Your task to perform on an android device: Clear all items from cart on ebay. Image 0: 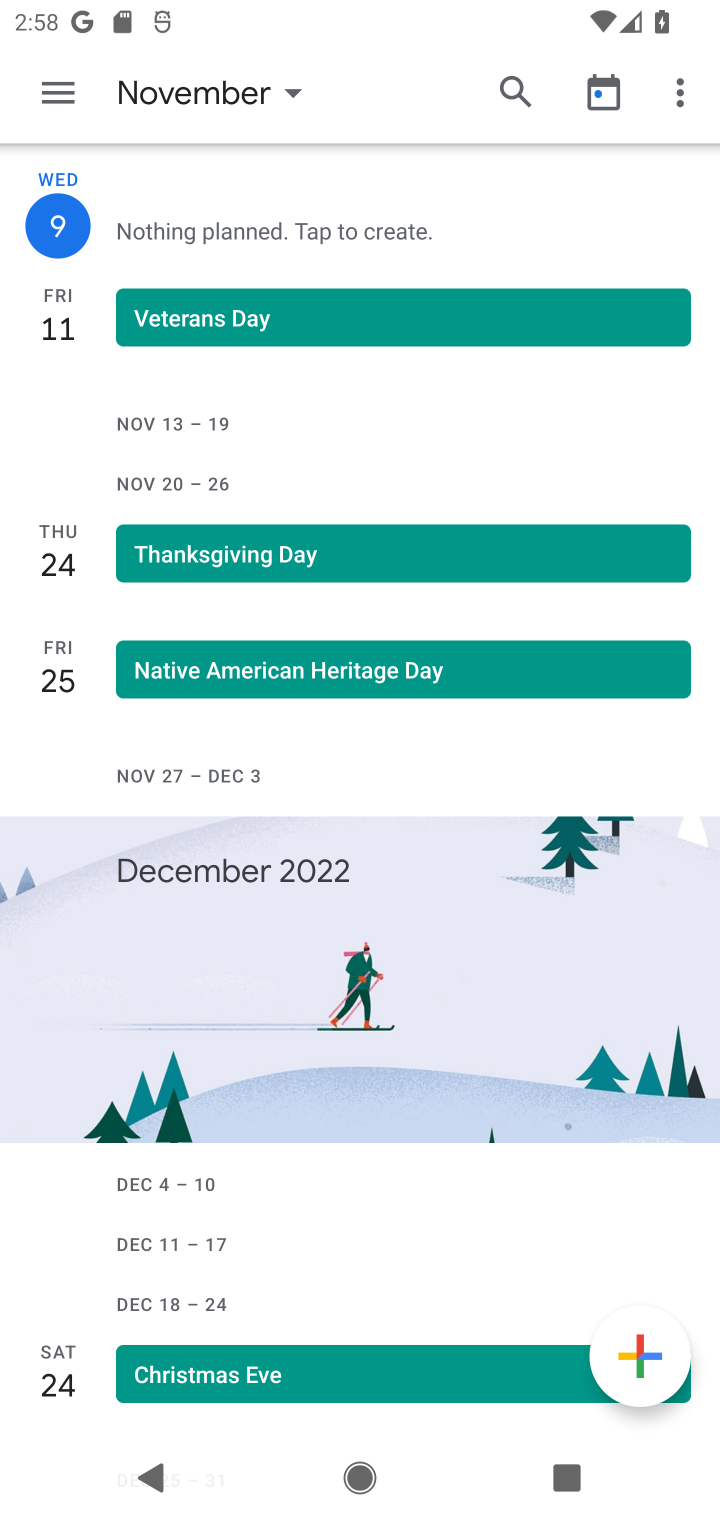
Step 0: press home button
Your task to perform on an android device: Clear all items from cart on ebay. Image 1: 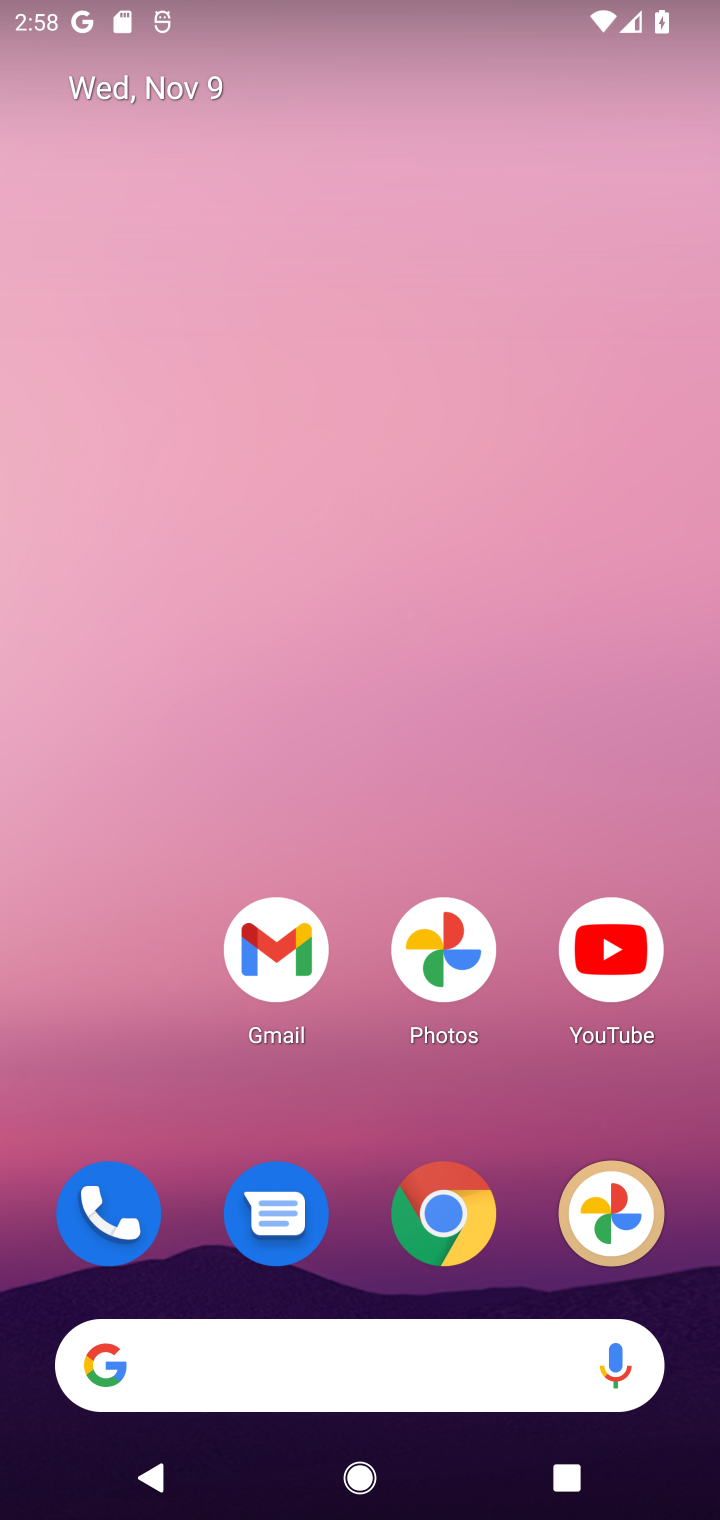
Step 1: click (441, 1215)
Your task to perform on an android device: Clear all items from cart on ebay. Image 2: 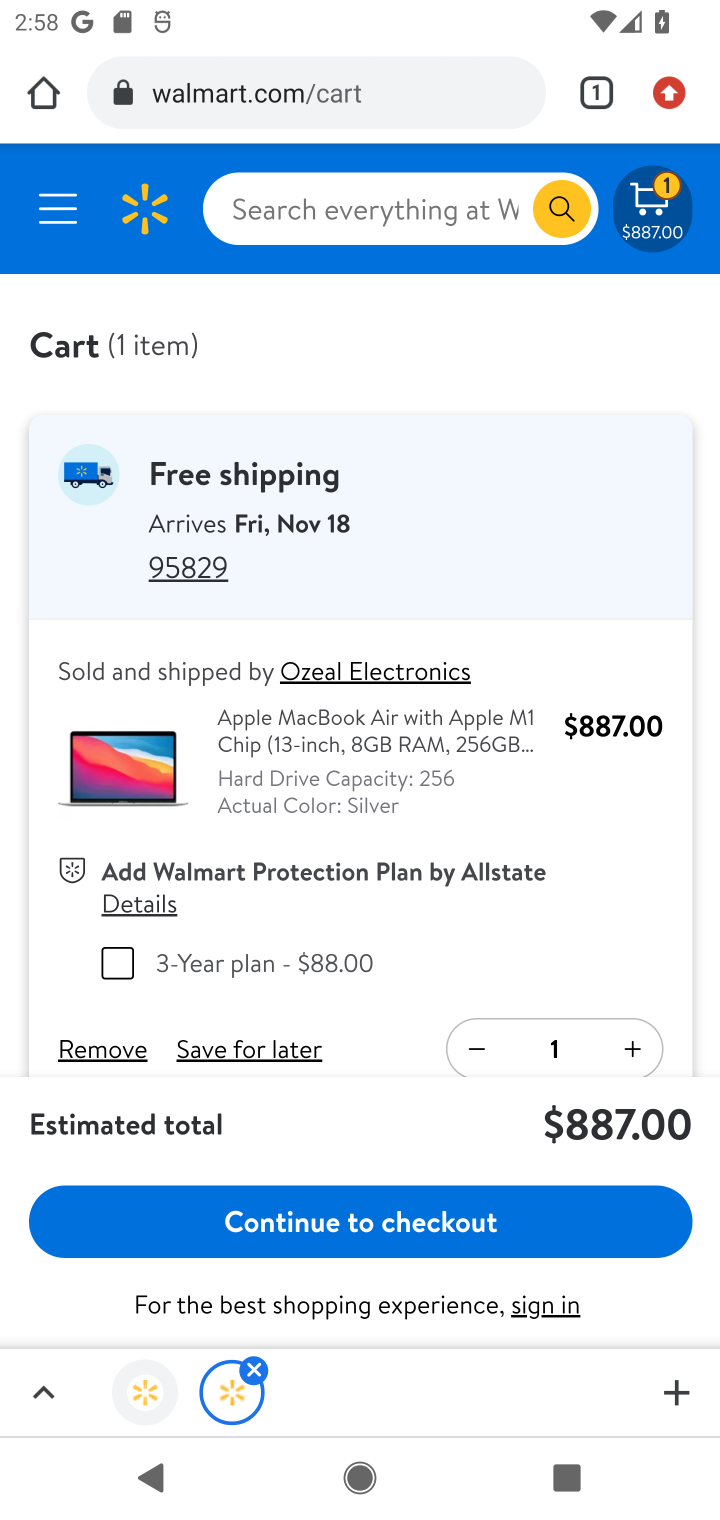
Step 2: click (398, 108)
Your task to perform on an android device: Clear all items from cart on ebay. Image 3: 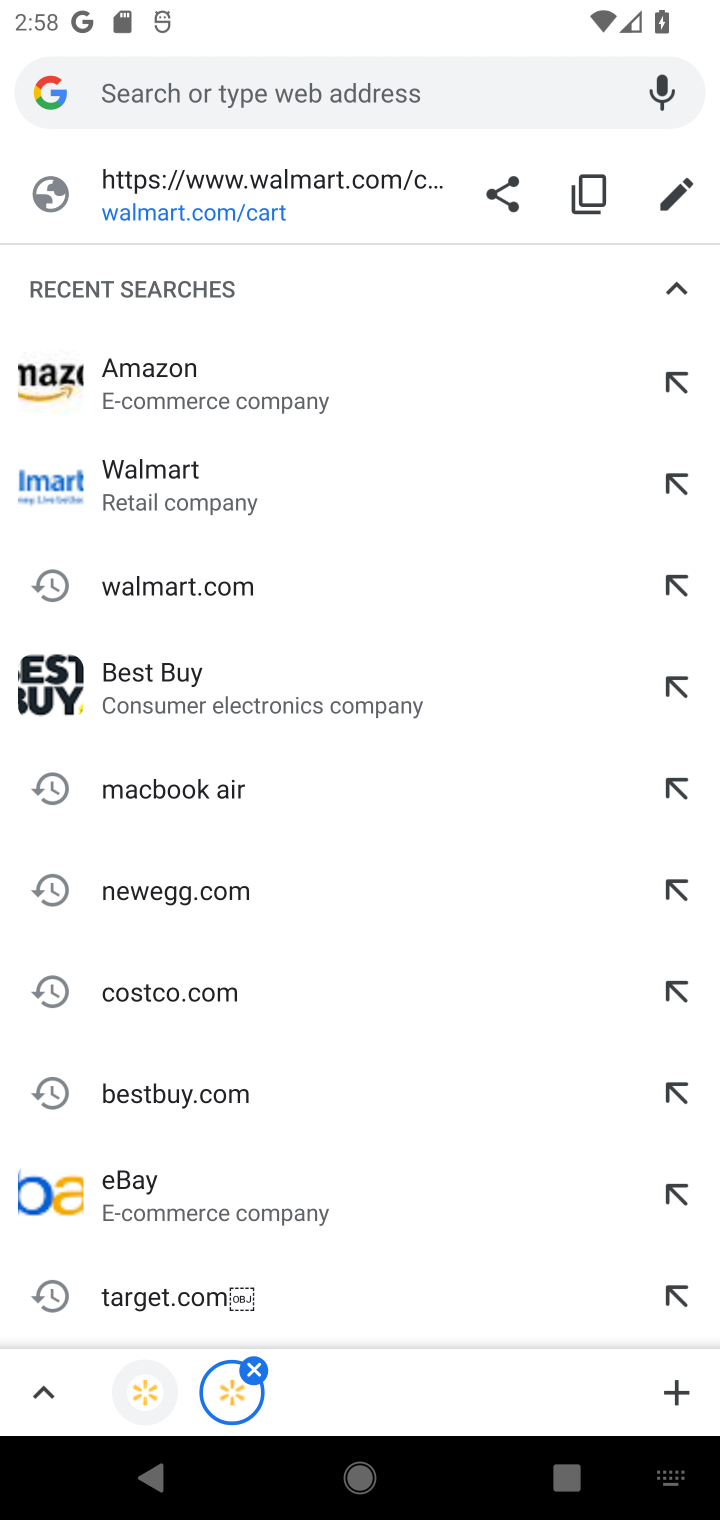
Step 3: type "ebay"
Your task to perform on an android device: Clear all items from cart on ebay. Image 4: 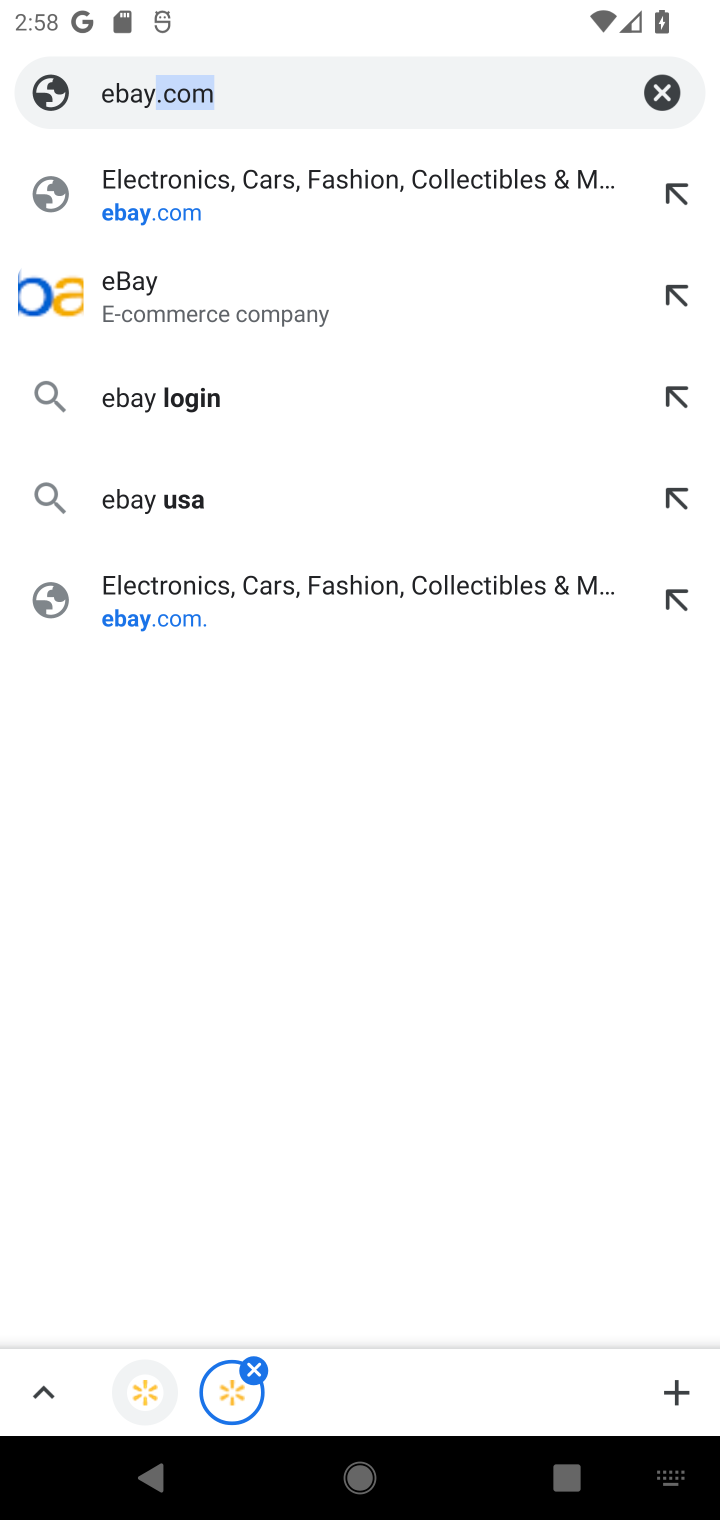
Step 4: click (230, 318)
Your task to perform on an android device: Clear all items from cart on ebay. Image 5: 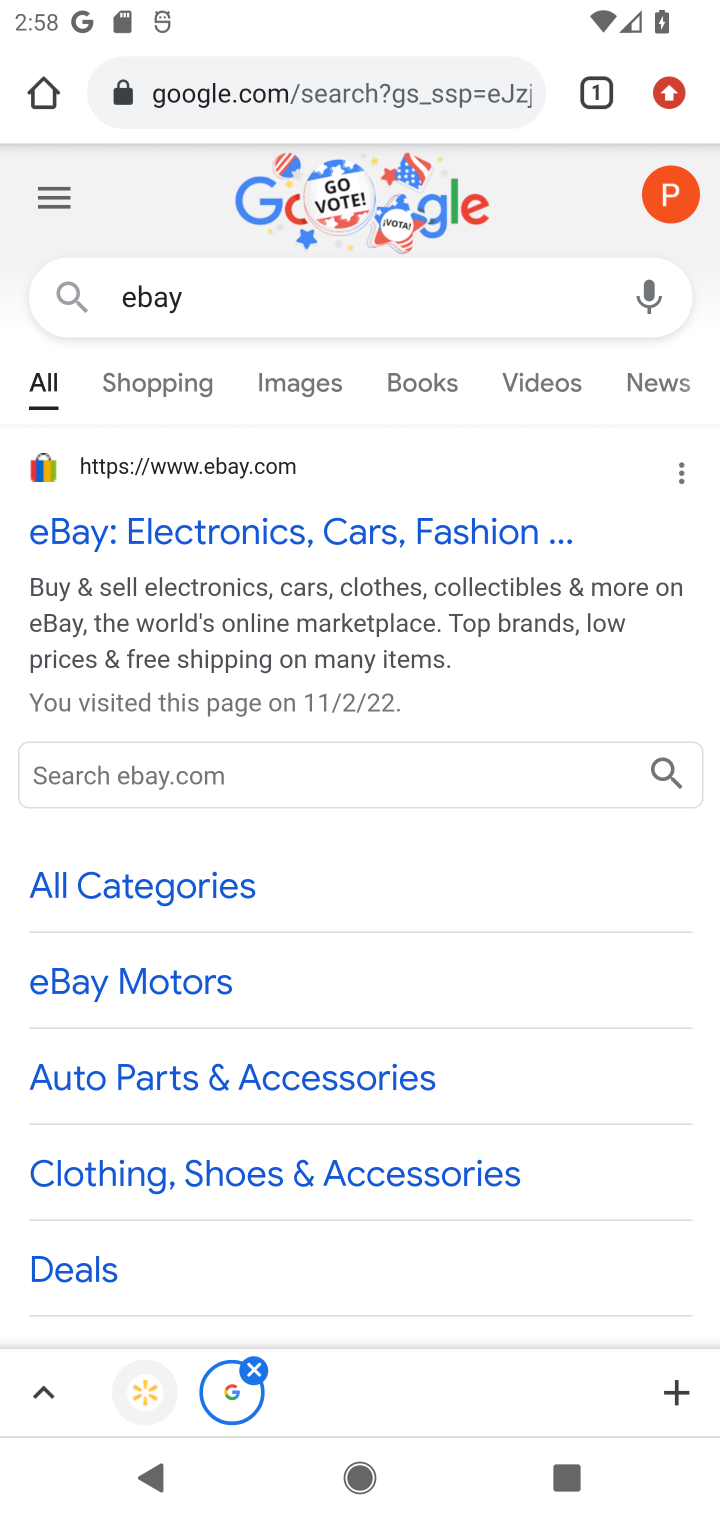
Step 5: click (284, 550)
Your task to perform on an android device: Clear all items from cart on ebay. Image 6: 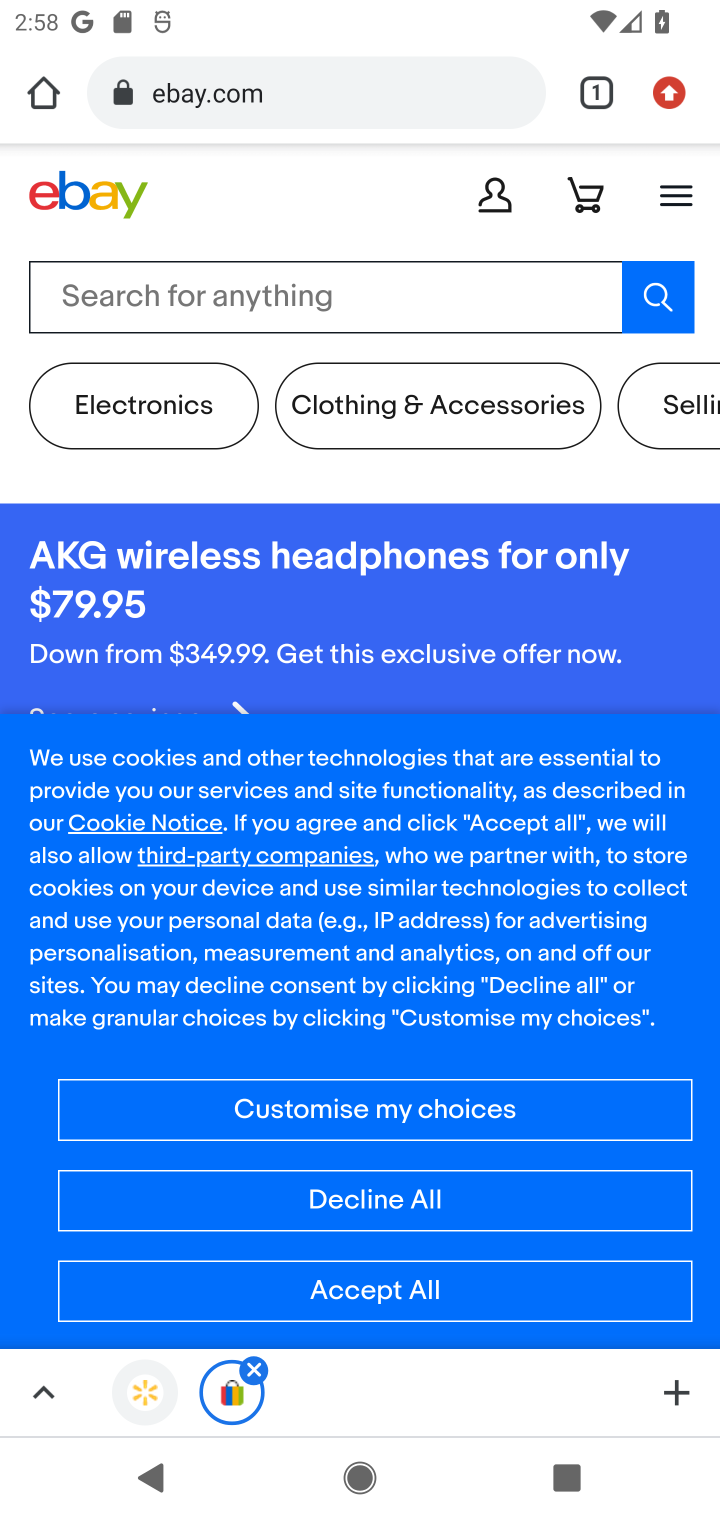
Step 6: click (418, 1300)
Your task to perform on an android device: Clear all items from cart on ebay. Image 7: 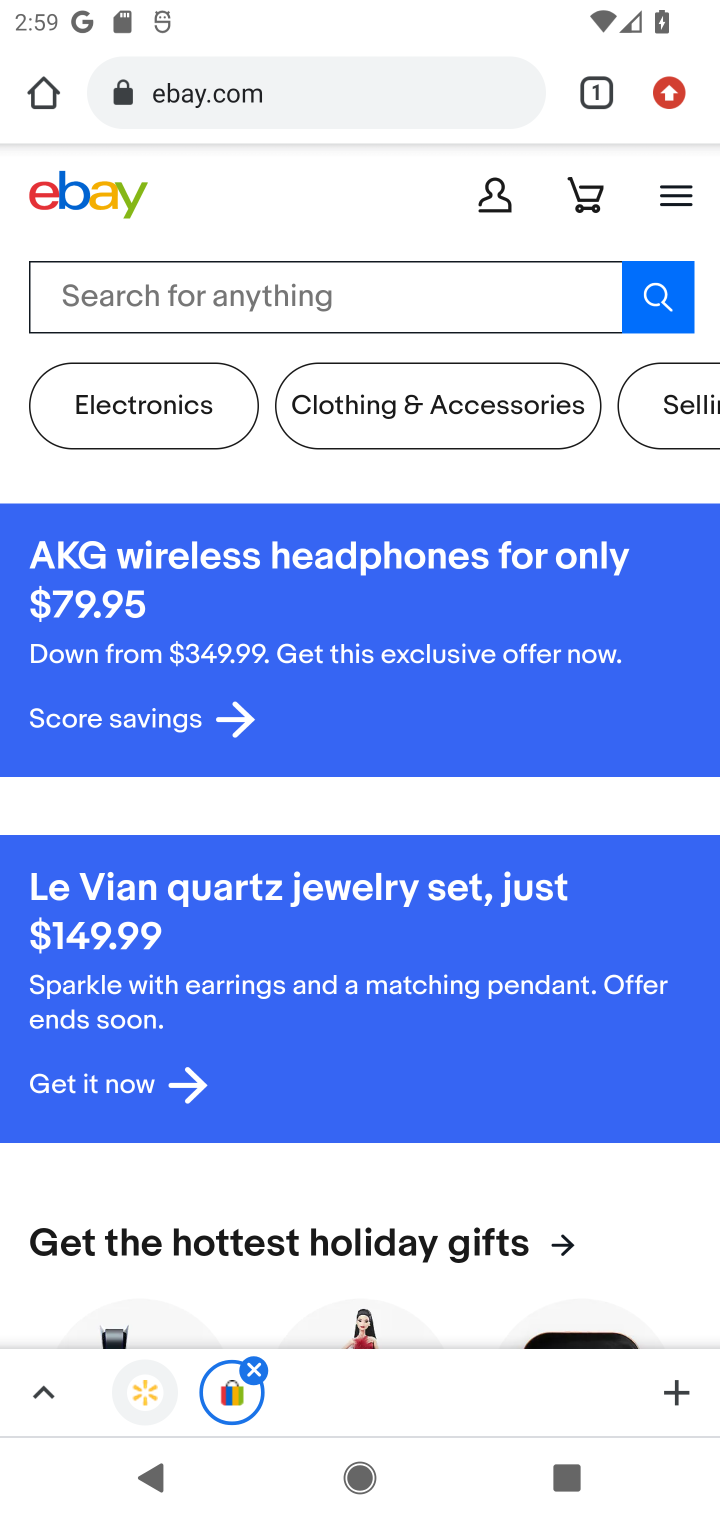
Step 7: click (588, 191)
Your task to perform on an android device: Clear all items from cart on ebay. Image 8: 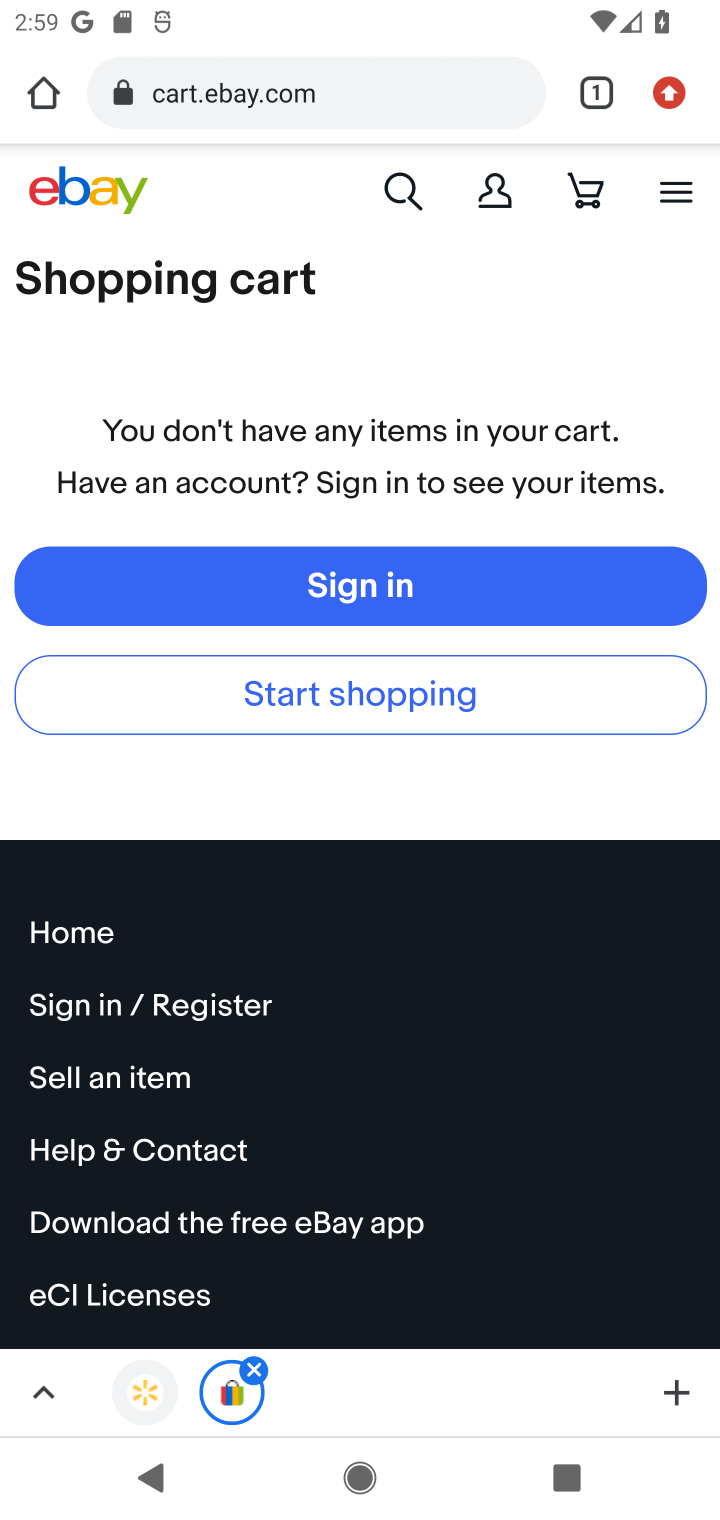
Step 8: task complete